Your task to perform on an android device: turn off priority inbox in the gmail app Image 0: 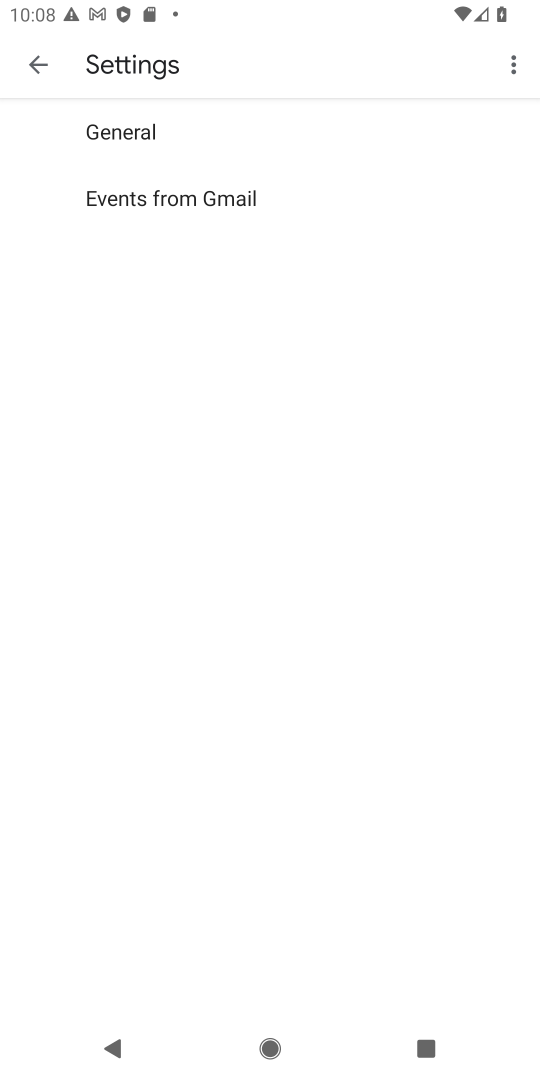
Step 0: press home button
Your task to perform on an android device: turn off priority inbox in the gmail app Image 1: 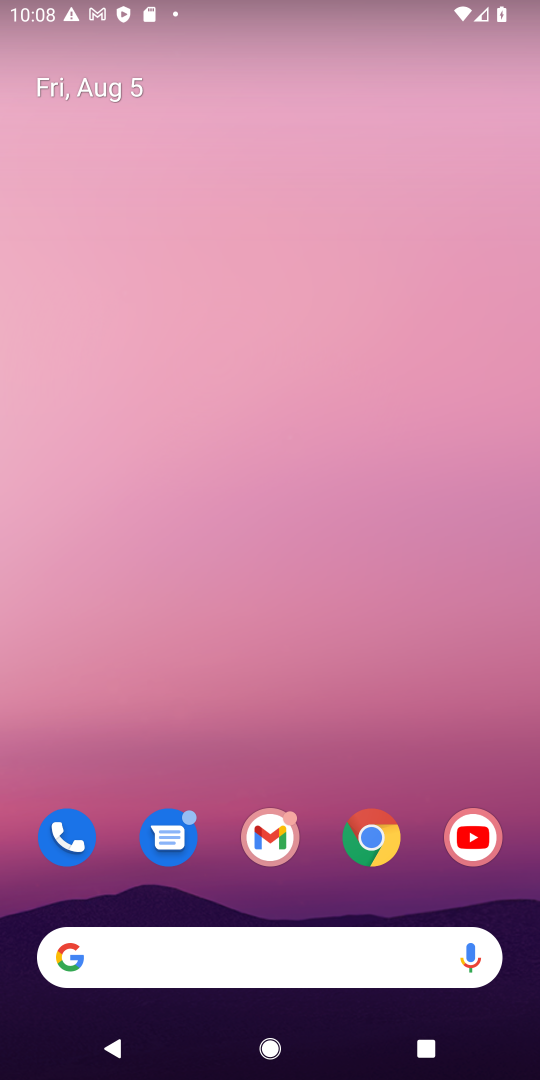
Step 1: click (279, 833)
Your task to perform on an android device: turn off priority inbox in the gmail app Image 2: 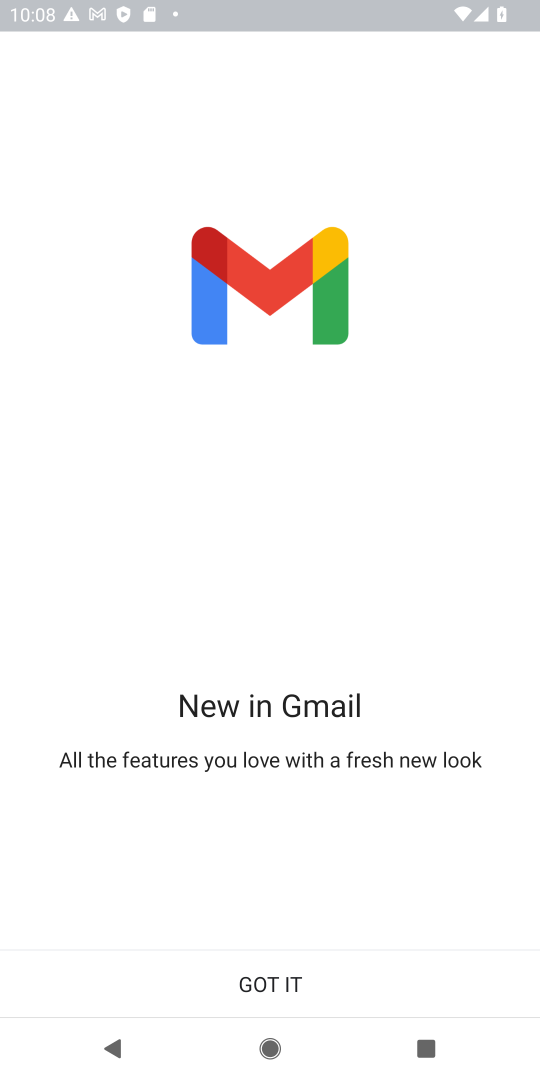
Step 2: click (284, 978)
Your task to perform on an android device: turn off priority inbox in the gmail app Image 3: 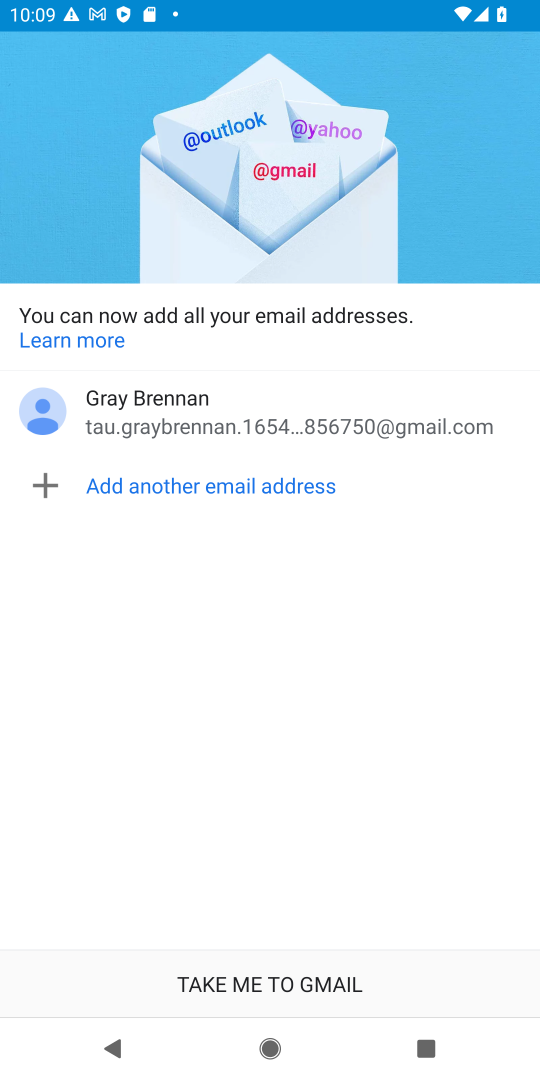
Step 3: click (284, 978)
Your task to perform on an android device: turn off priority inbox in the gmail app Image 4: 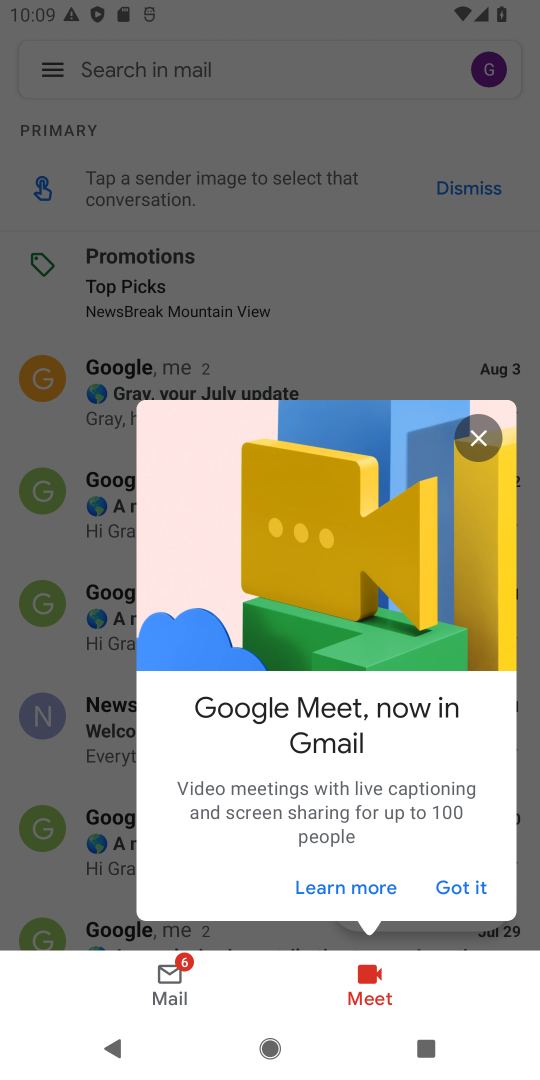
Step 4: click (476, 434)
Your task to perform on an android device: turn off priority inbox in the gmail app Image 5: 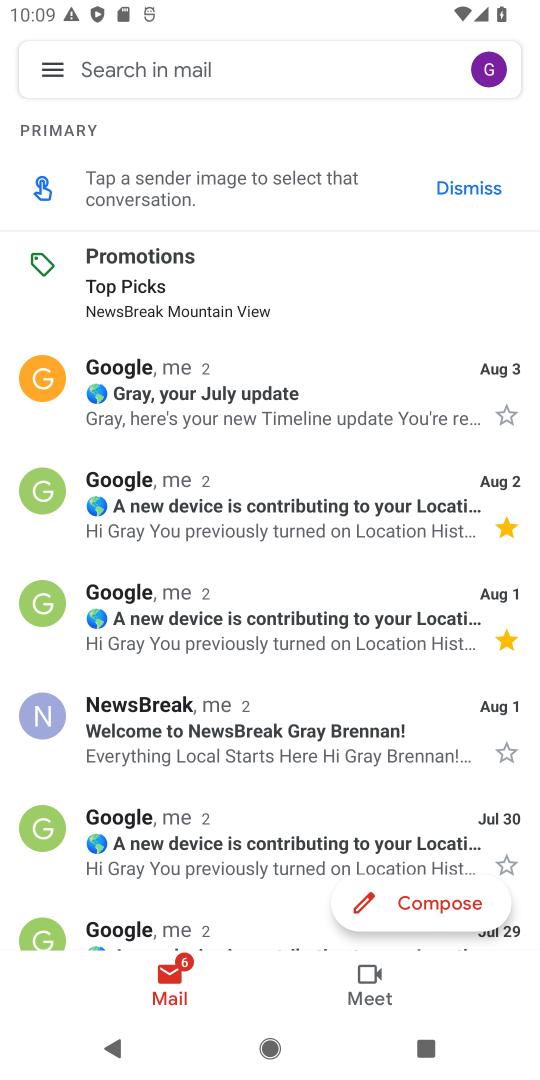
Step 5: click (51, 69)
Your task to perform on an android device: turn off priority inbox in the gmail app Image 6: 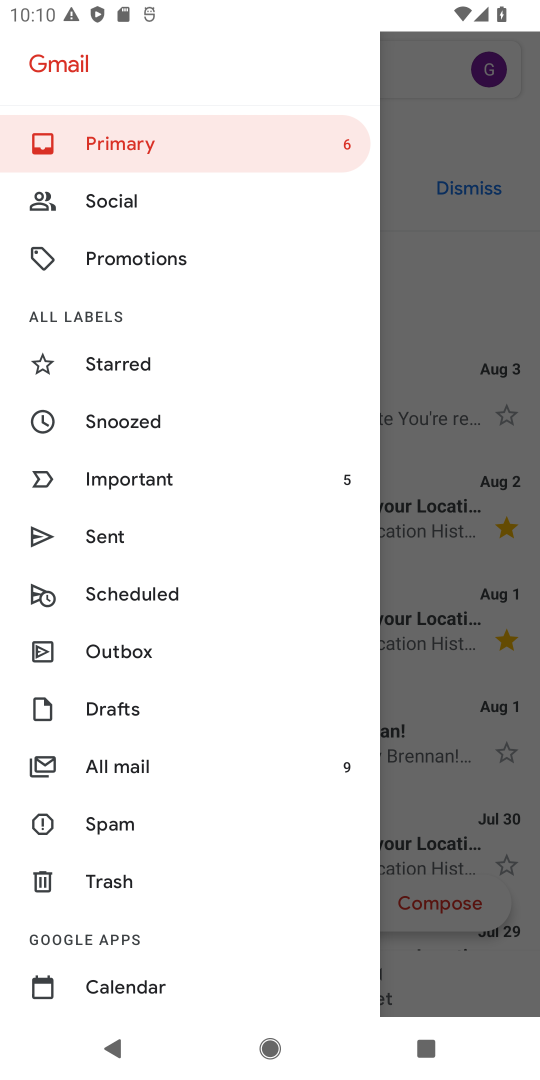
Step 6: drag from (168, 772) to (199, 237)
Your task to perform on an android device: turn off priority inbox in the gmail app Image 7: 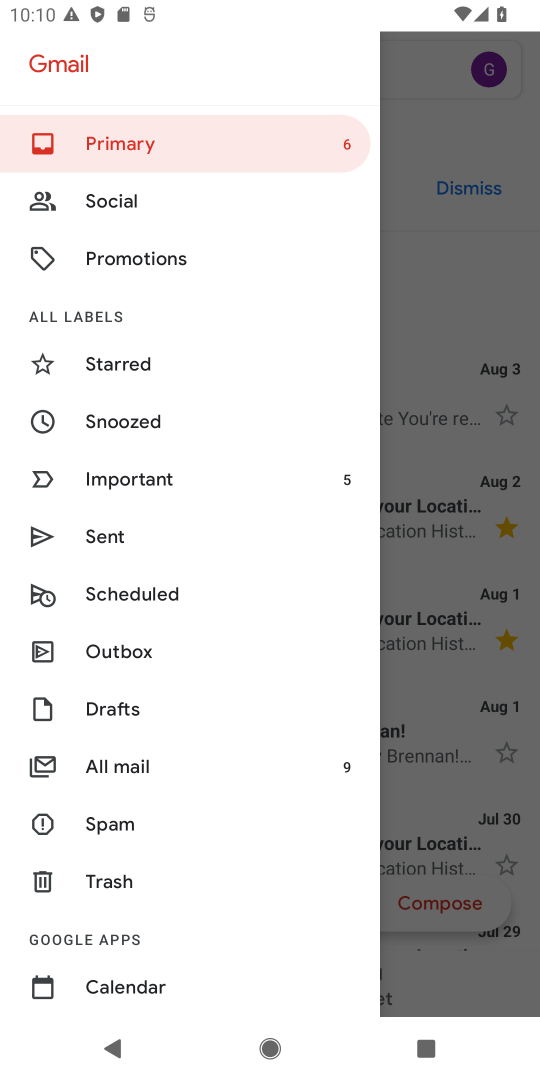
Step 7: drag from (202, 813) to (296, 202)
Your task to perform on an android device: turn off priority inbox in the gmail app Image 8: 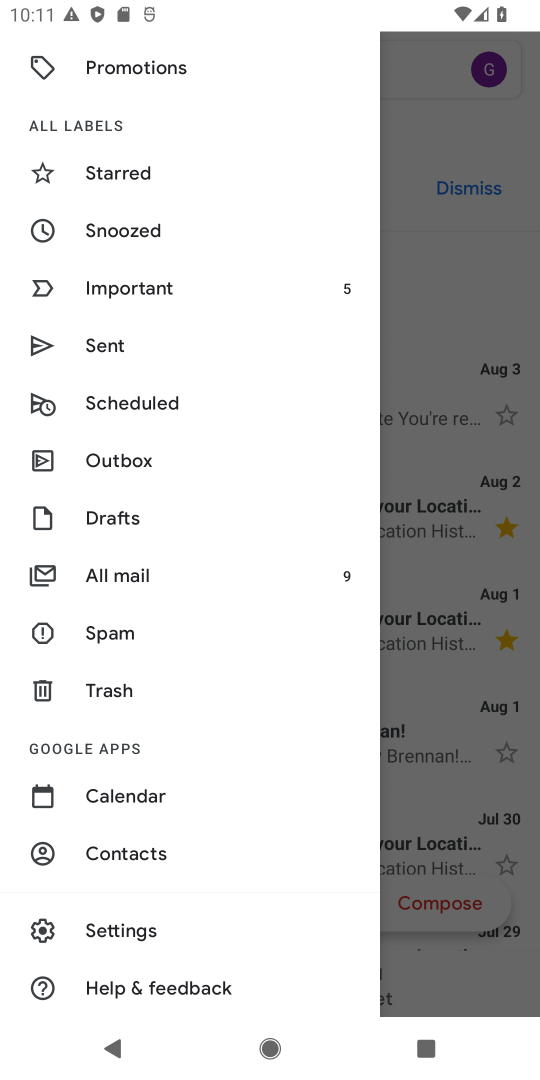
Step 8: click (143, 933)
Your task to perform on an android device: turn off priority inbox in the gmail app Image 9: 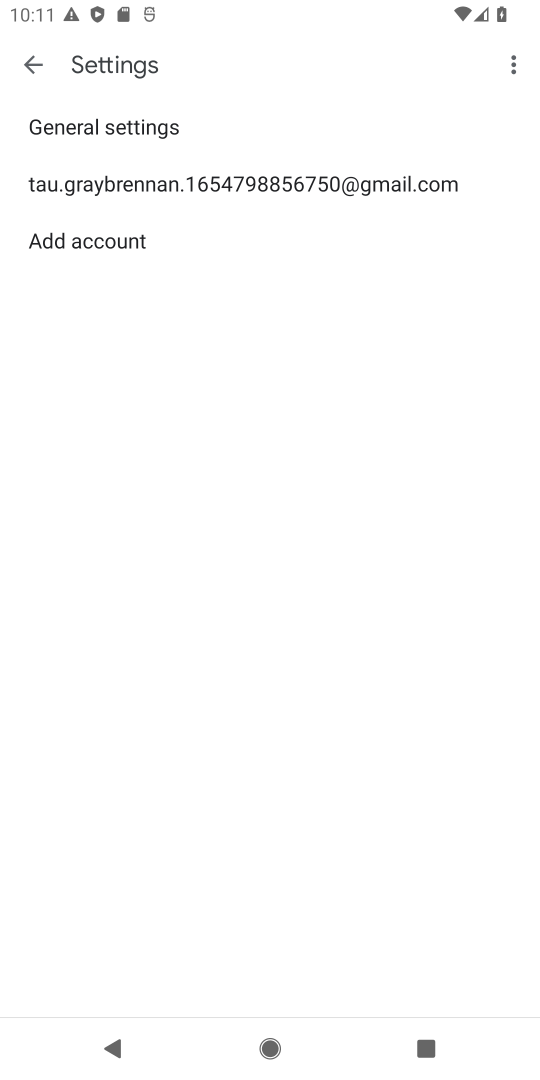
Step 9: click (413, 178)
Your task to perform on an android device: turn off priority inbox in the gmail app Image 10: 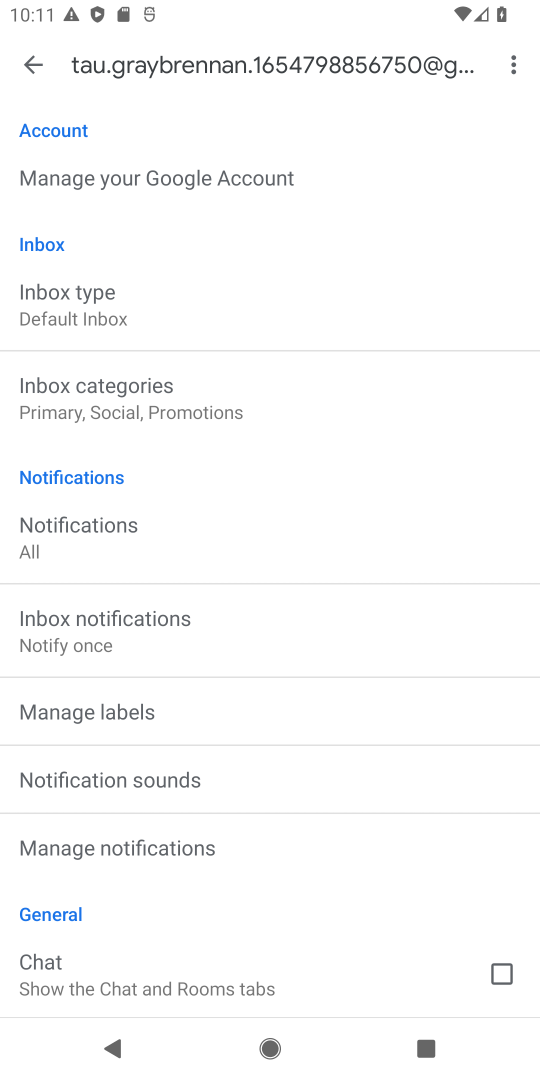
Step 10: click (107, 294)
Your task to perform on an android device: turn off priority inbox in the gmail app Image 11: 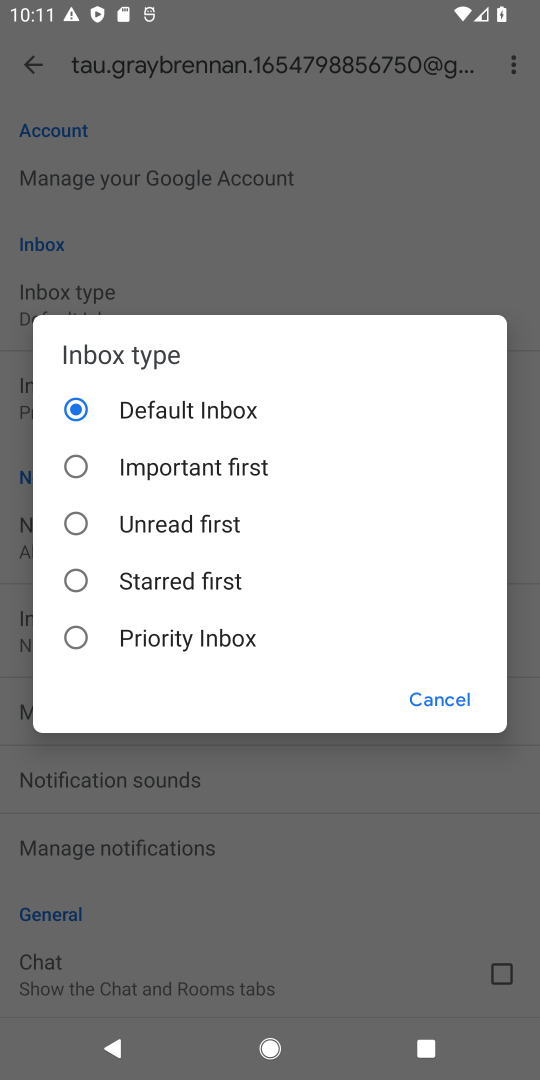
Step 11: click (165, 392)
Your task to perform on an android device: turn off priority inbox in the gmail app Image 12: 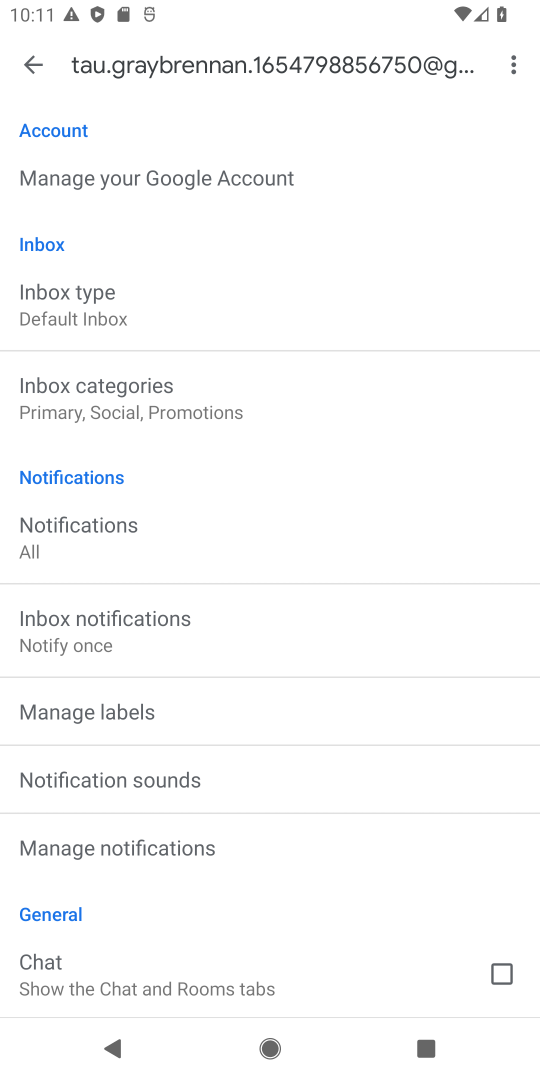
Step 12: task complete